Your task to perform on an android device: Search for pizza restaurants on Maps Image 0: 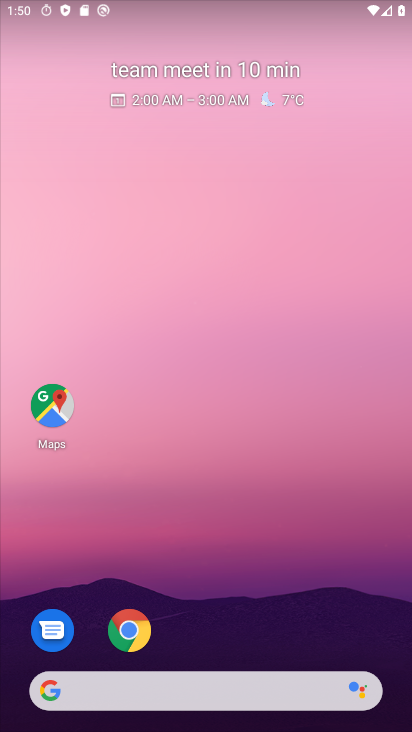
Step 0: drag from (167, 707) to (163, 319)
Your task to perform on an android device: Search for pizza restaurants on Maps Image 1: 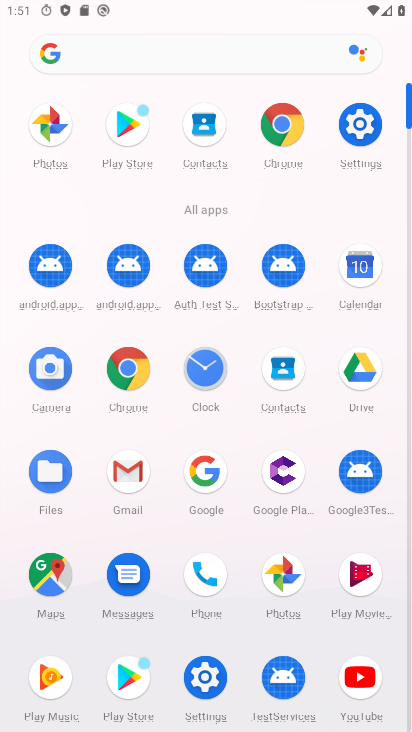
Step 1: click (60, 566)
Your task to perform on an android device: Search for pizza restaurants on Maps Image 2: 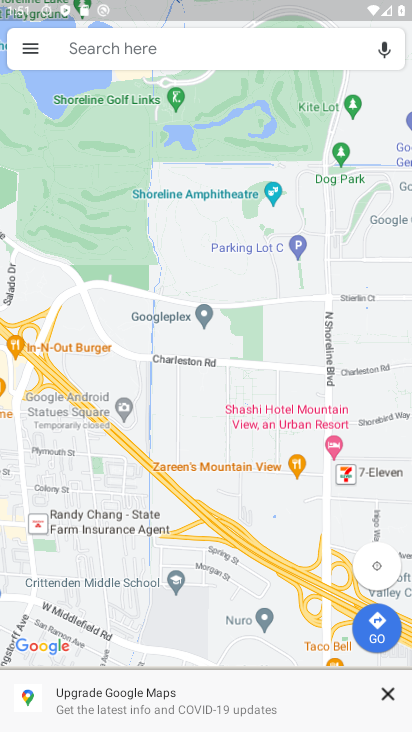
Step 2: click (162, 53)
Your task to perform on an android device: Search for pizza restaurants on Maps Image 3: 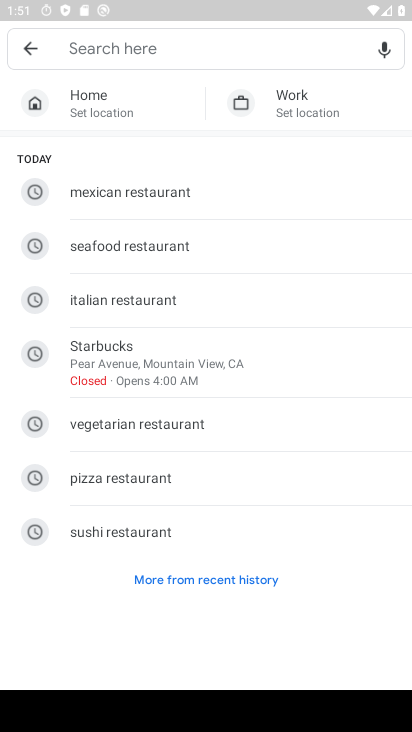
Step 3: click (172, 478)
Your task to perform on an android device: Search for pizza restaurants on Maps Image 4: 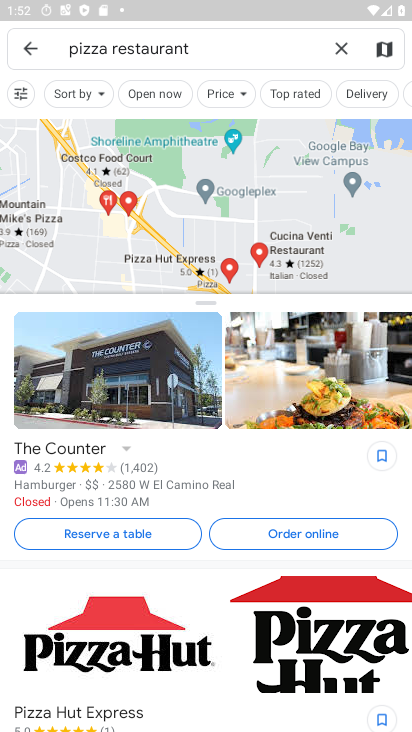
Step 4: task complete